Your task to perform on an android device: turn on priority inbox in the gmail app Image 0: 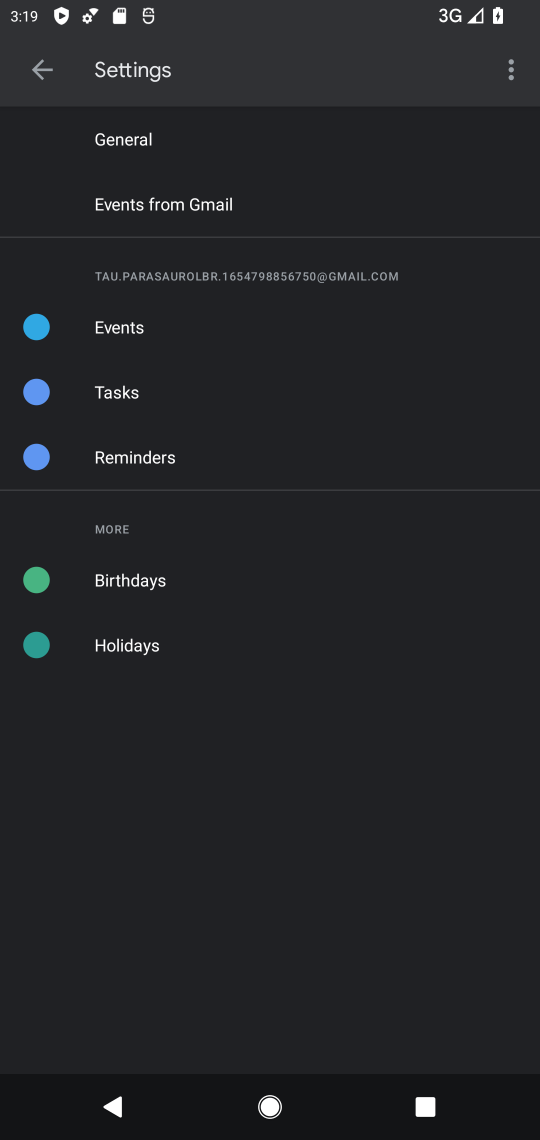
Step 0: click (36, 85)
Your task to perform on an android device: turn on priority inbox in the gmail app Image 1: 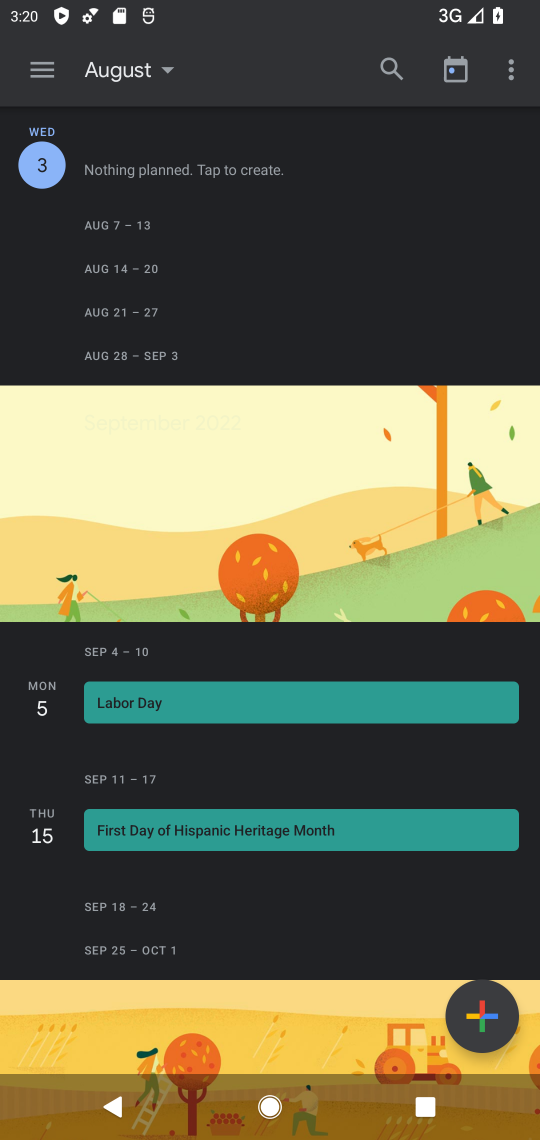
Step 1: task complete